Your task to perform on an android device: check google app version Image 0: 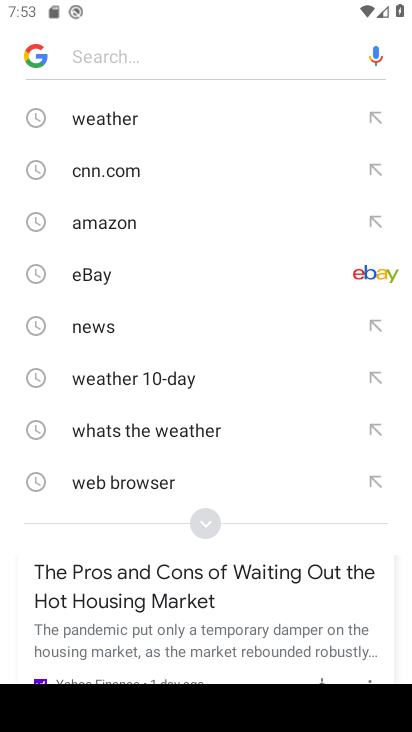
Step 0: click (36, 63)
Your task to perform on an android device: check google app version Image 1: 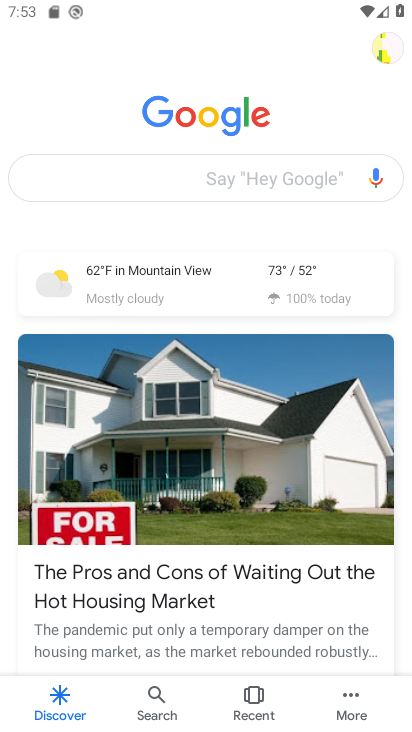
Step 1: click (346, 692)
Your task to perform on an android device: check google app version Image 2: 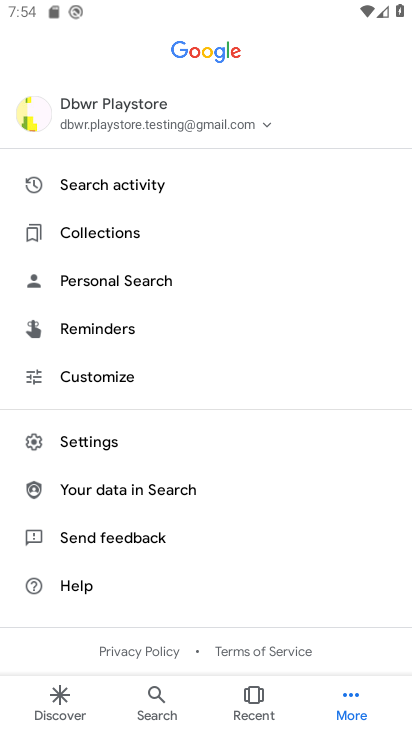
Step 2: click (88, 444)
Your task to perform on an android device: check google app version Image 3: 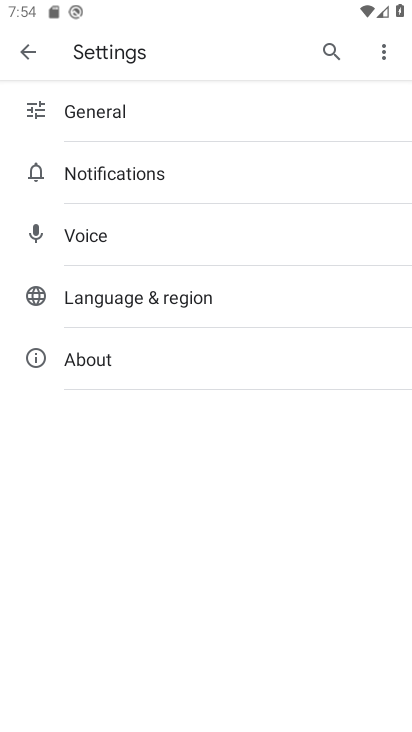
Step 3: click (75, 351)
Your task to perform on an android device: check google app version Image 4: 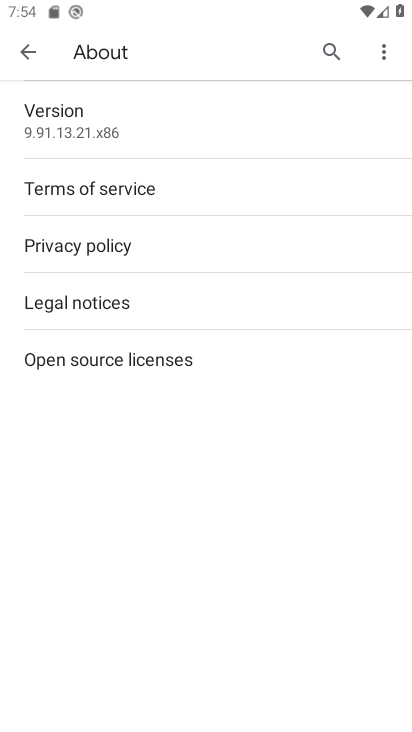
Step 4: task complete